Your task to perform on an android device: What's the weather going to be tomorrow? Image 0: 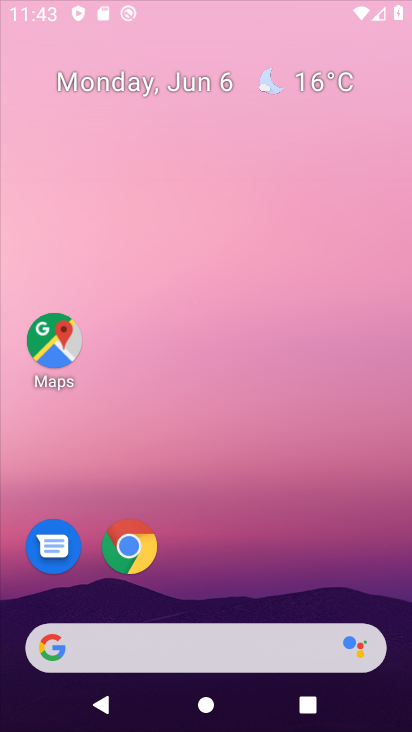
Step 0: click (151, 210)
Your task to perform on an android device: What's the weather going to be tomorrow? Image 1: 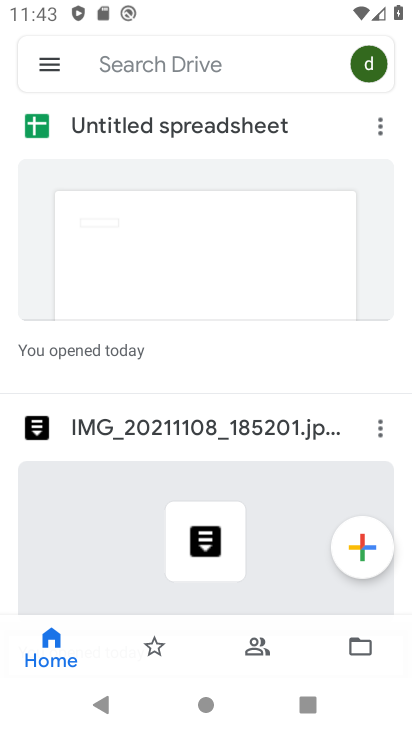
Step 1: task complete